Your task to perform on an android device: Open my contact list Image 0: 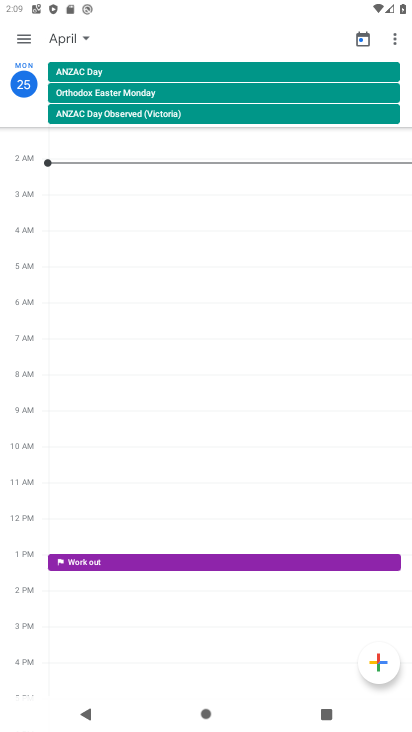
Step 0: press home button
Your task to perform on an android device: Open my contact list Image 1: 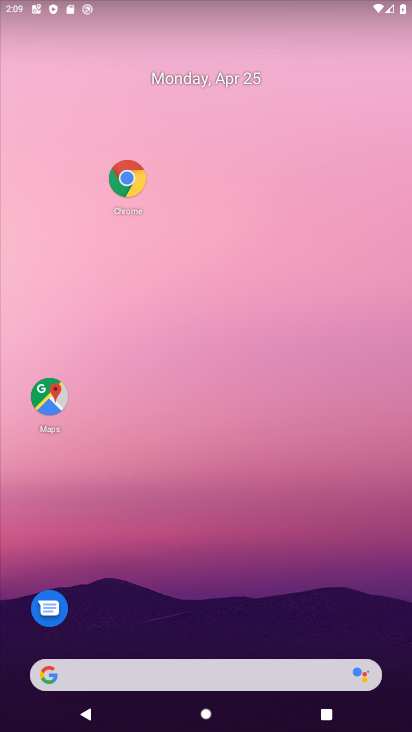
Step 1: drag from (265, 612) to (288, 124)
Your task to perform on an android device: Open my contact list Image 2: 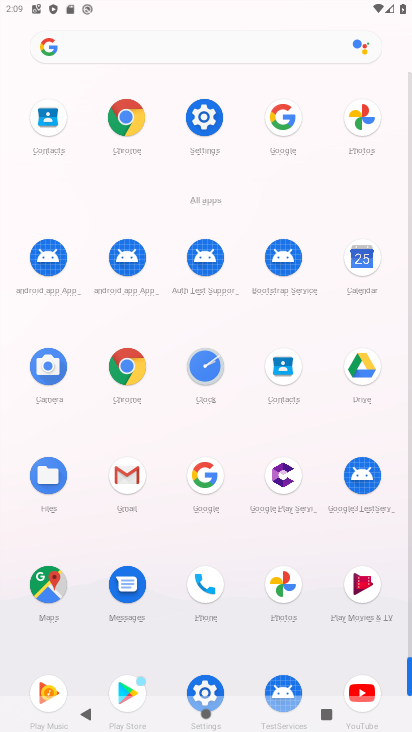
Step 2: drag from (366, 266) to (36, 413)
Your task to perform on an android device: Open my contact list Image 3: 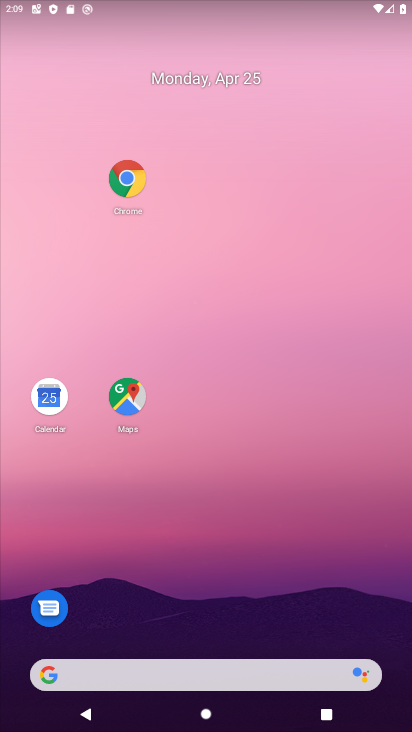
Step 3: click (237, 609)
Your task to perform on an android device: Open my contact list Image 4: 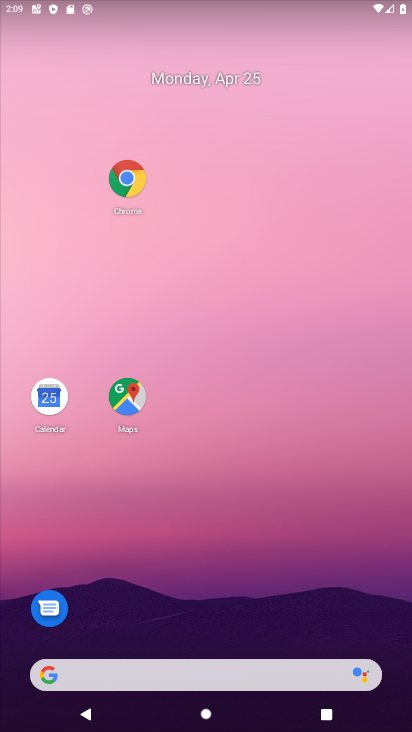
Step 4: drag from (210, 636) to (191, 161)
Your task to perform on an android device: Open my contact list Image 5: 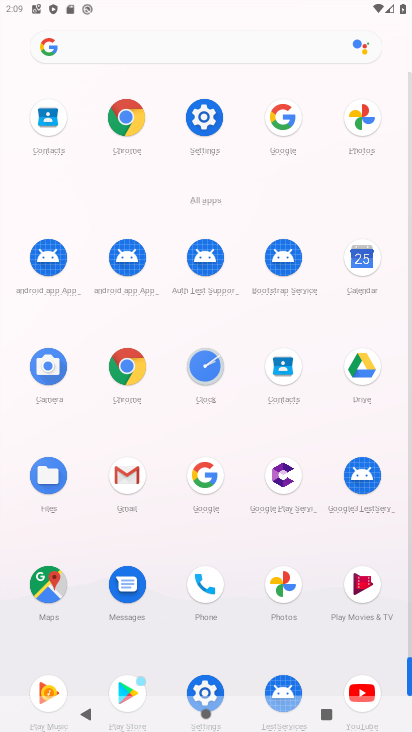
Step 5: click (287, 367)
Your task to perform on an android device: Open my contact list Image 6: 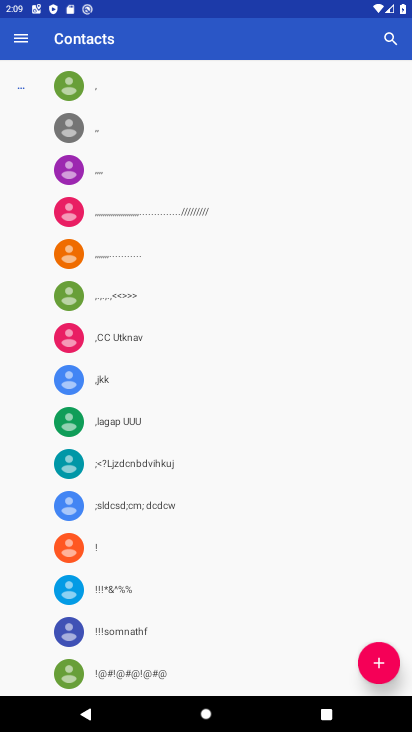
Step 6: task complete